Your task to perform on an android device: manage bookmarks in the chrome app Image 0: 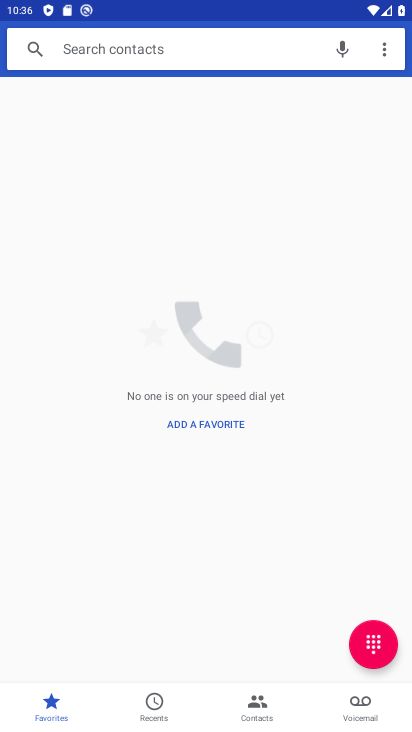
Step 0: press home button
Your task to perform on an android device: manage bookmarks in the chrome app Image 1: 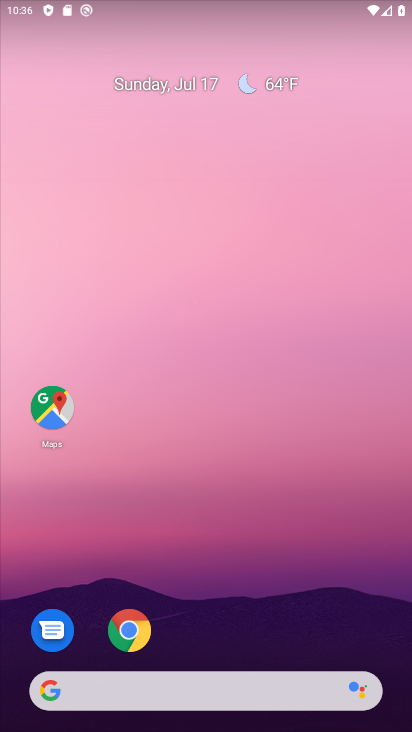
Step 1: click (132, 633)
Your task to perform on an android device: manage bookmarks in the chrome app Image 2: 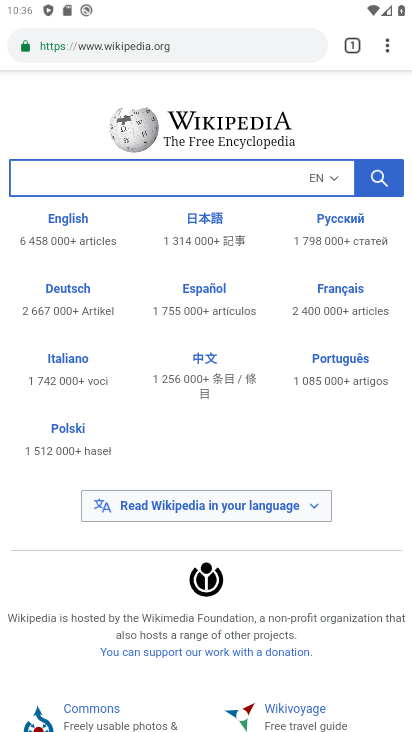
Step 2: click (388, 47)
Your task to perform on an android device: manage bookmarks in the chrome app Image 3: 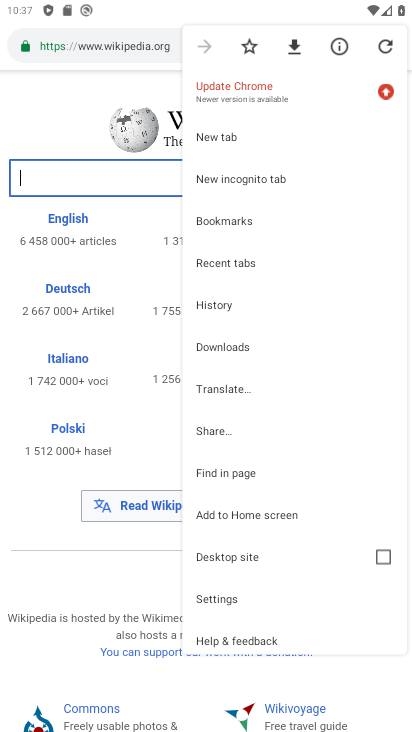
Step 3: click (226, 219)
Your task to perform on an android device: manage bookmarks in the chrome app Image 4: 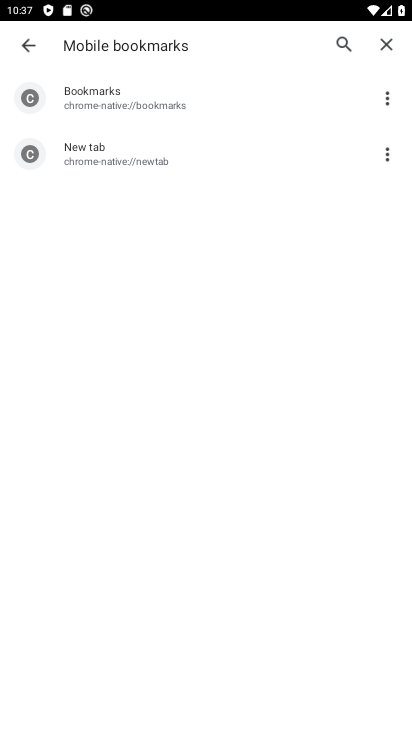
Step 4: click (85, 93)
Your task to perform on an android device: manage bookmarks in the chrome app Image 5: 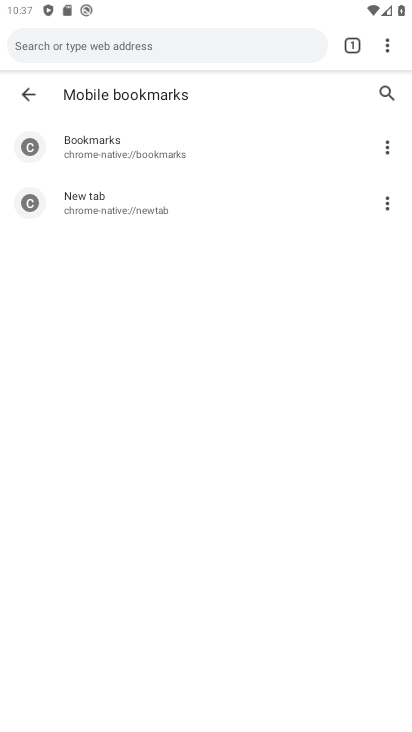
Step 5: click (106, 196)
Your task to perform on an android device: manage bookmarks in the chrome app Image 6: 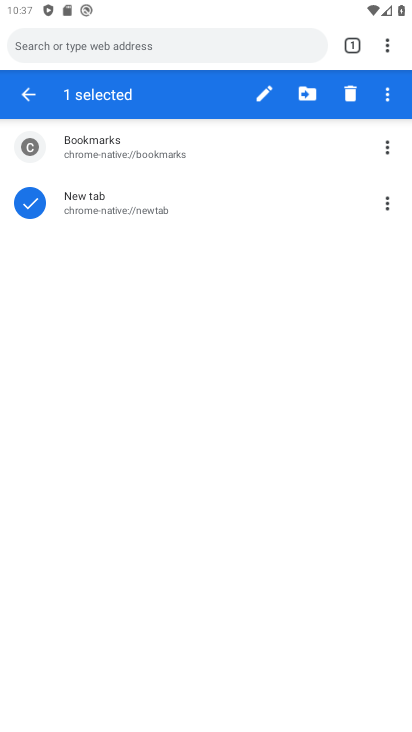
Step 6: click (261, 90)
Your task to perform on an android device: manage bookmarks in the chrome app Image 7: 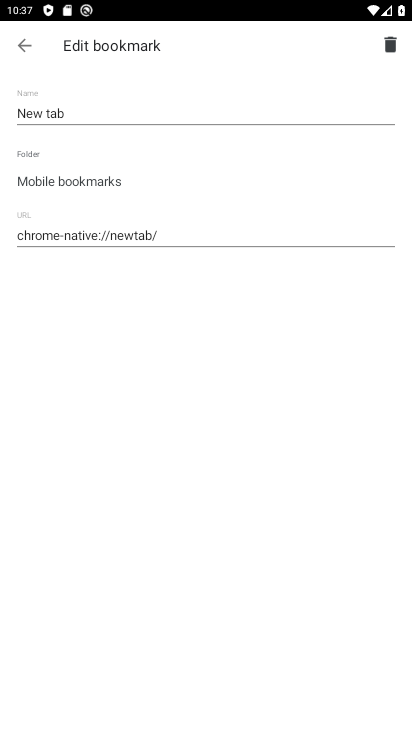
Step 7: click (73, 104)
Your task to perform on an android device: manage bookmarks in the chrome app Image 8: 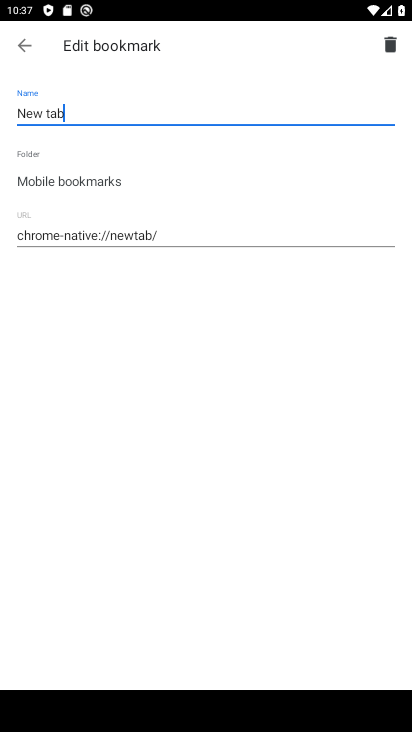
Step 8: type "tvf"
Your task to perform on an android device: manage bookmarks in the chrome app Image 9: 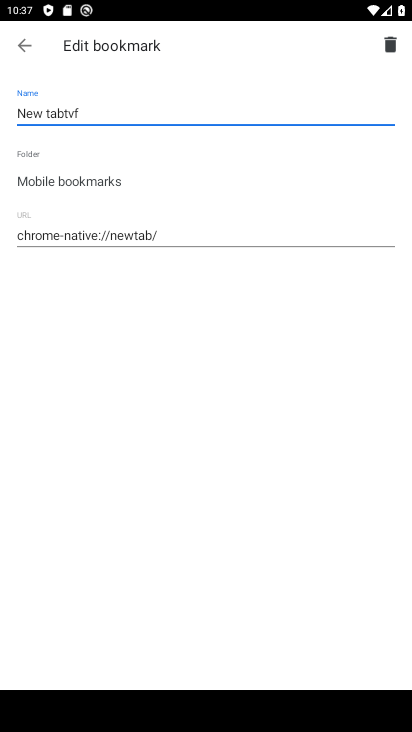
Step 9: task complete